Your task to perform on an android device: Open accessibility settings Image 0: 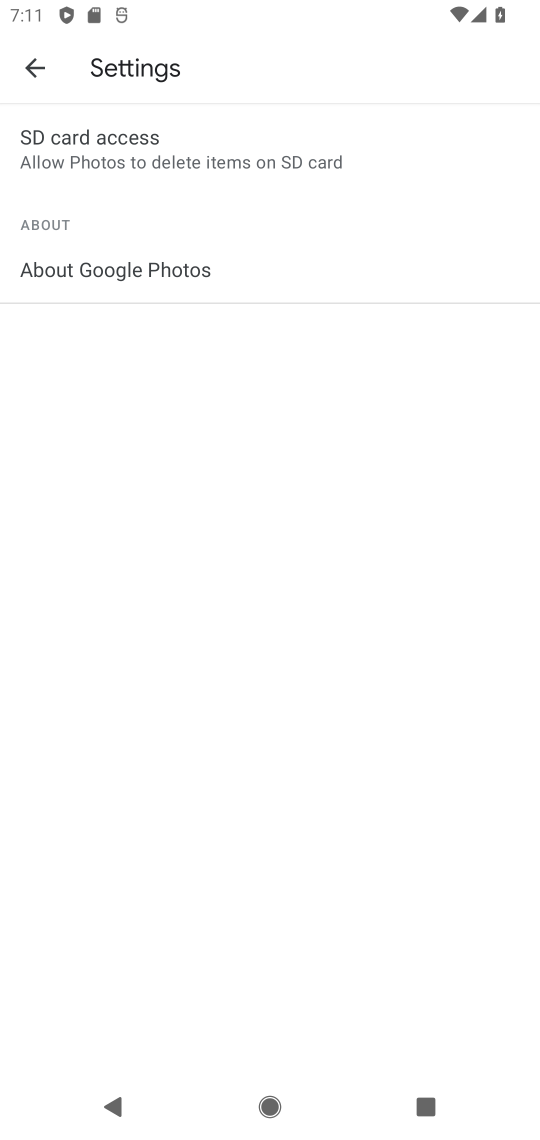
Step 0: press home button
Your task to perform on an android device: Open accessibility settings Image 1: 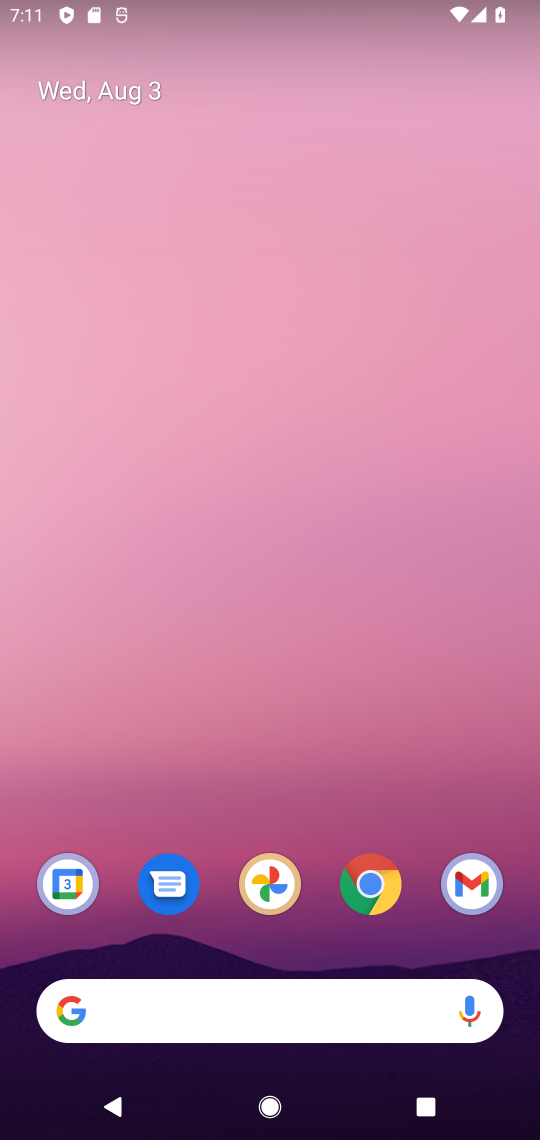
Step 1: drag from (354, 761) to (418, 403)
Your task to perform on an android device: Open accessibility settings Image 2: 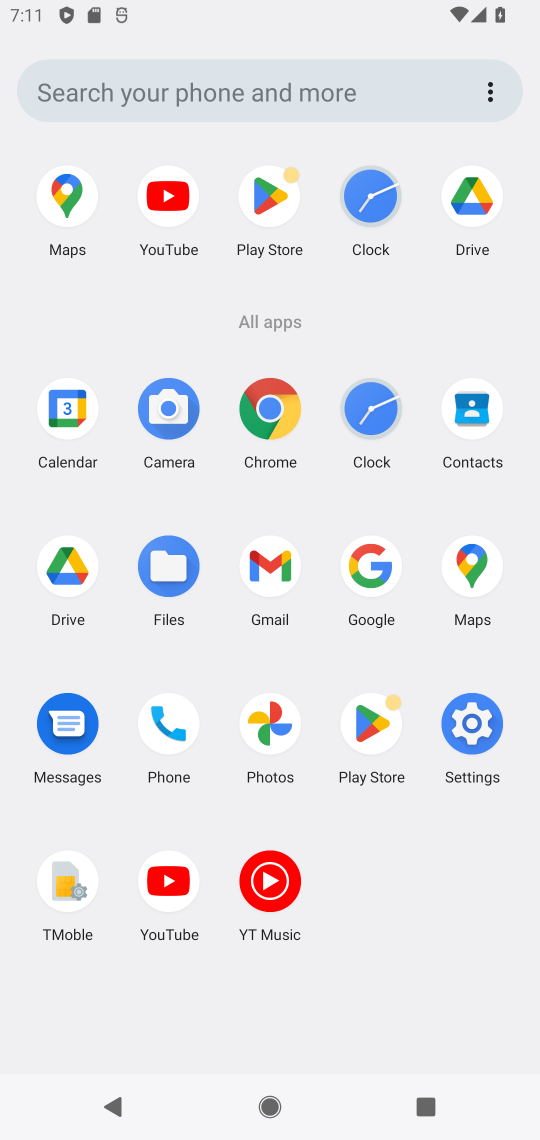
Step 2: click (461, 760)
Your task to perform on an android device: Open accessibility settings Image 3: 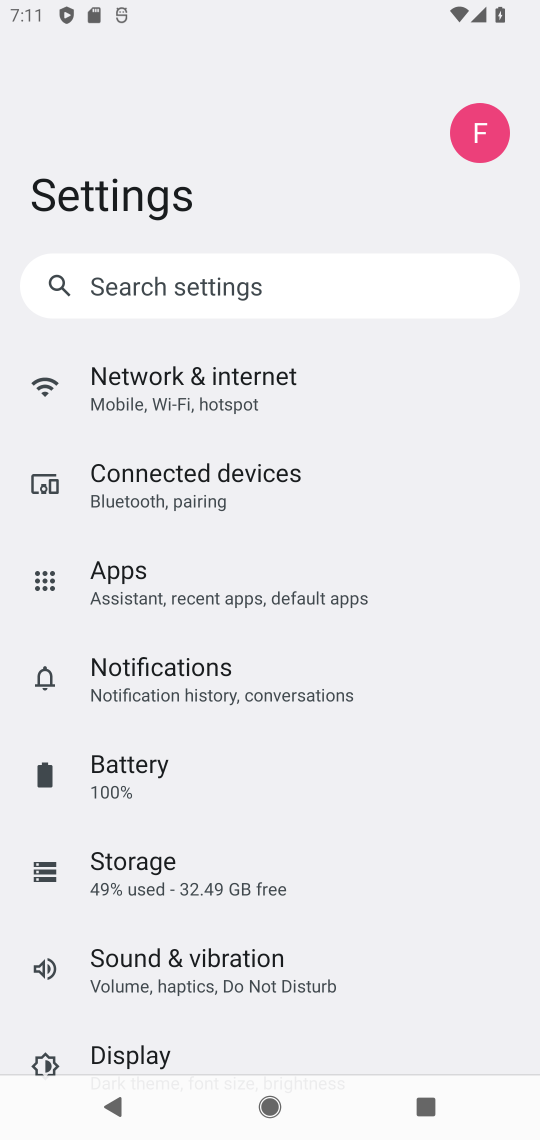
Step 3: drag from (381, 720) to (389, 364)
Your task to perform on an android device: Open accessibility settings Image 4: 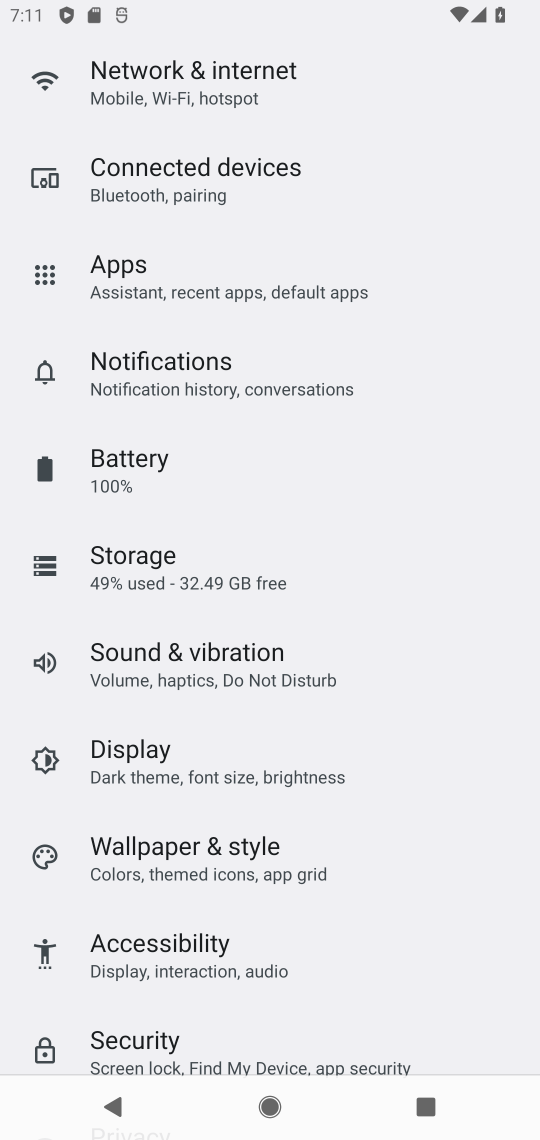
Step 4: click (225, 964)
Your task to perform on an android device: Open accessibility settings Image 5: 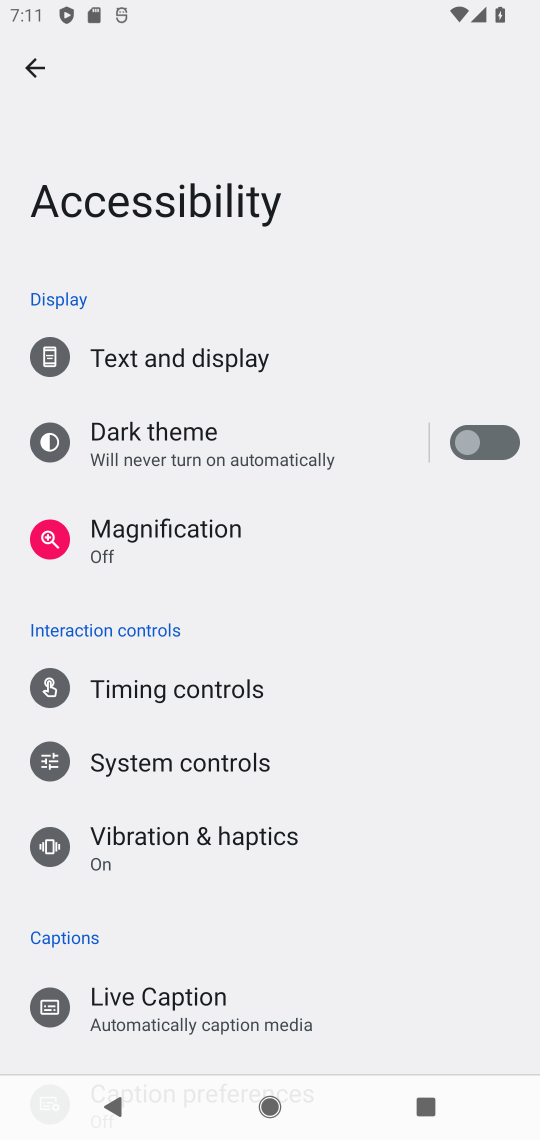
Step 5: task complete